Your task to perform on an android device: open app "Google Chat" (install if not already installed) Image 0: 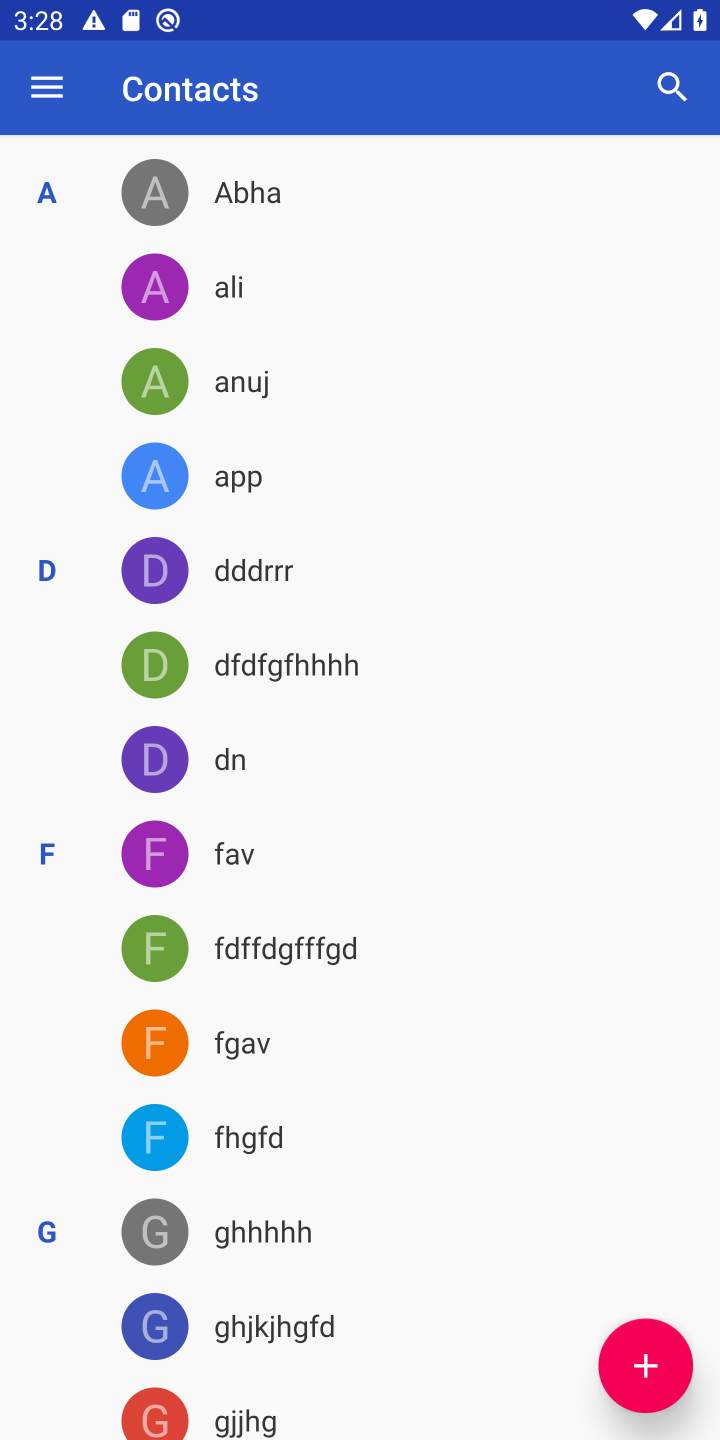
Step 0: press home button
Your task to perform on an android device: open app "Google Chat" (install if not already installed) Image 1: 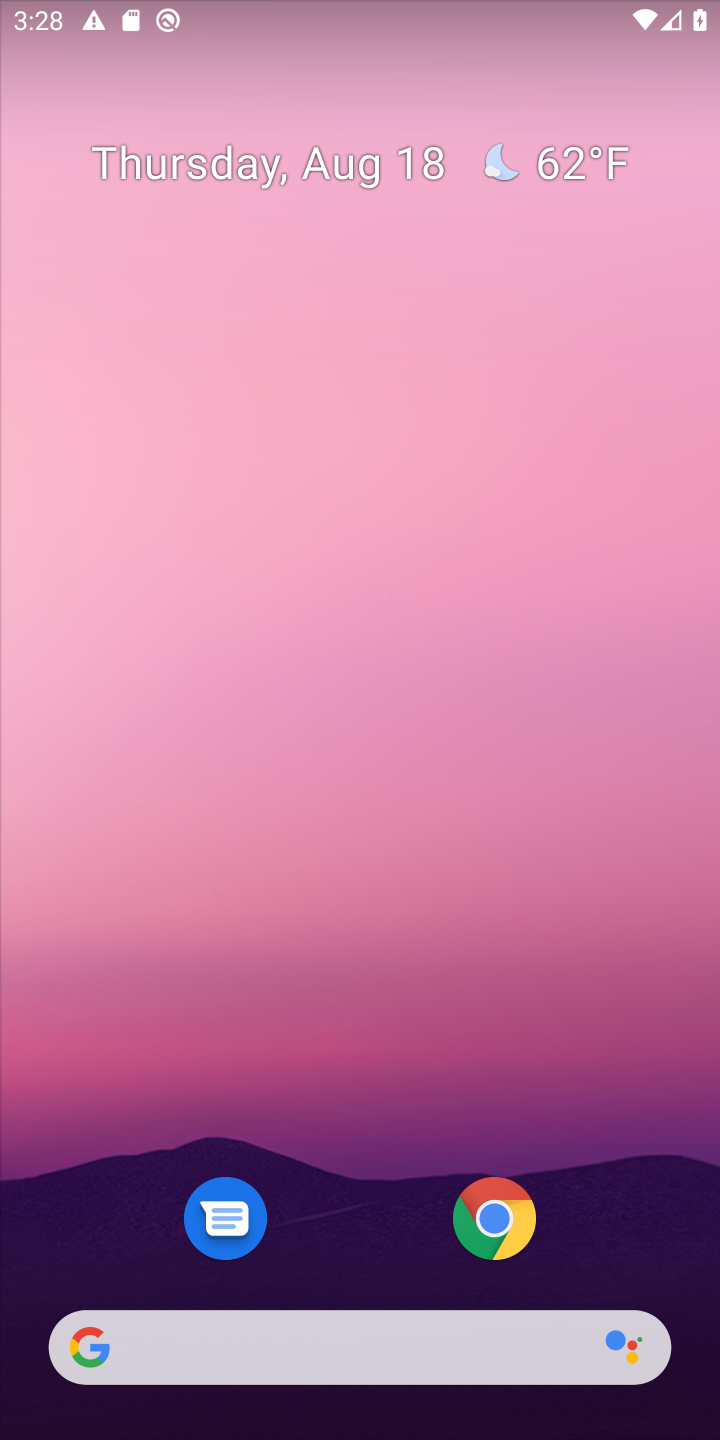
Step 1: drag from (341, 1163) to (355, 361)
Your task to perform on an android device: open app "Google Chat" (install if not already installed) Image 2: 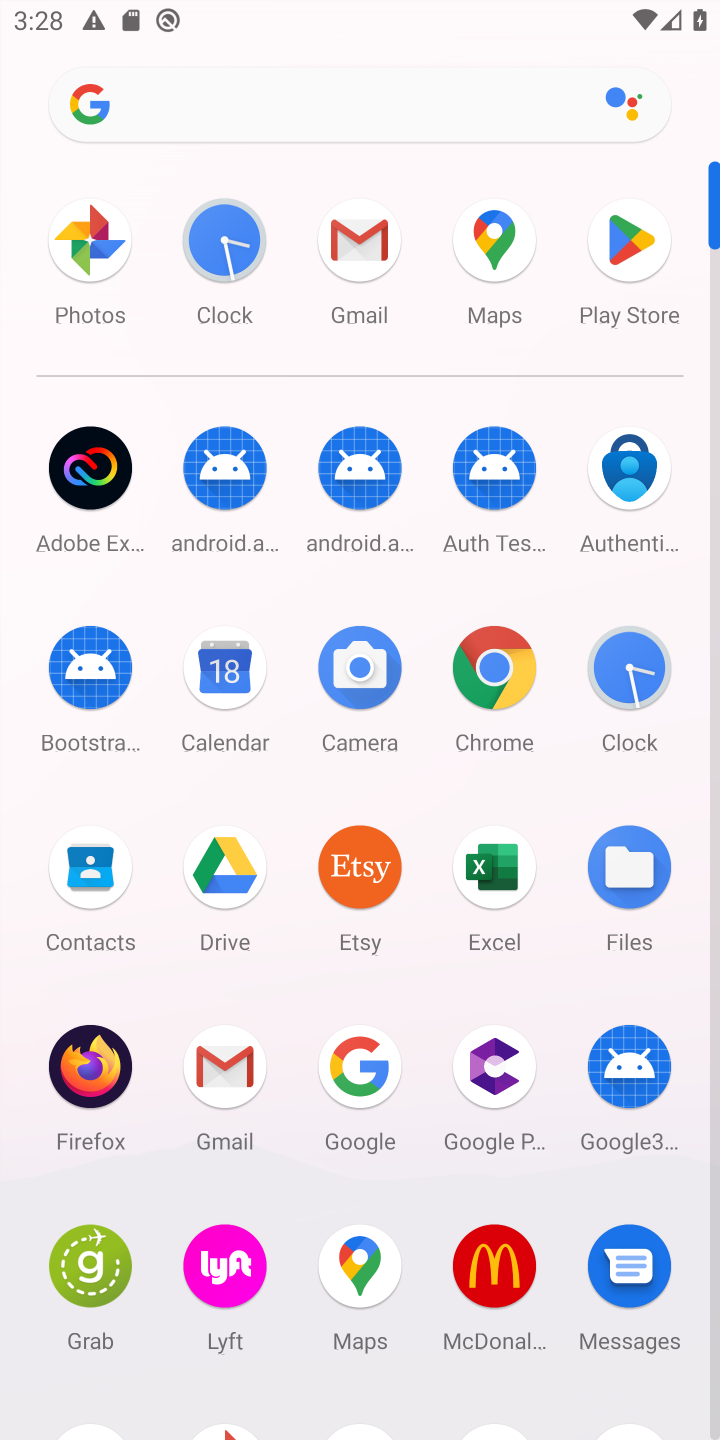
Step 2: click (614, 256)
Your task to perform on an android device: open app "Google Chat" (install if not already installed) Image 3: 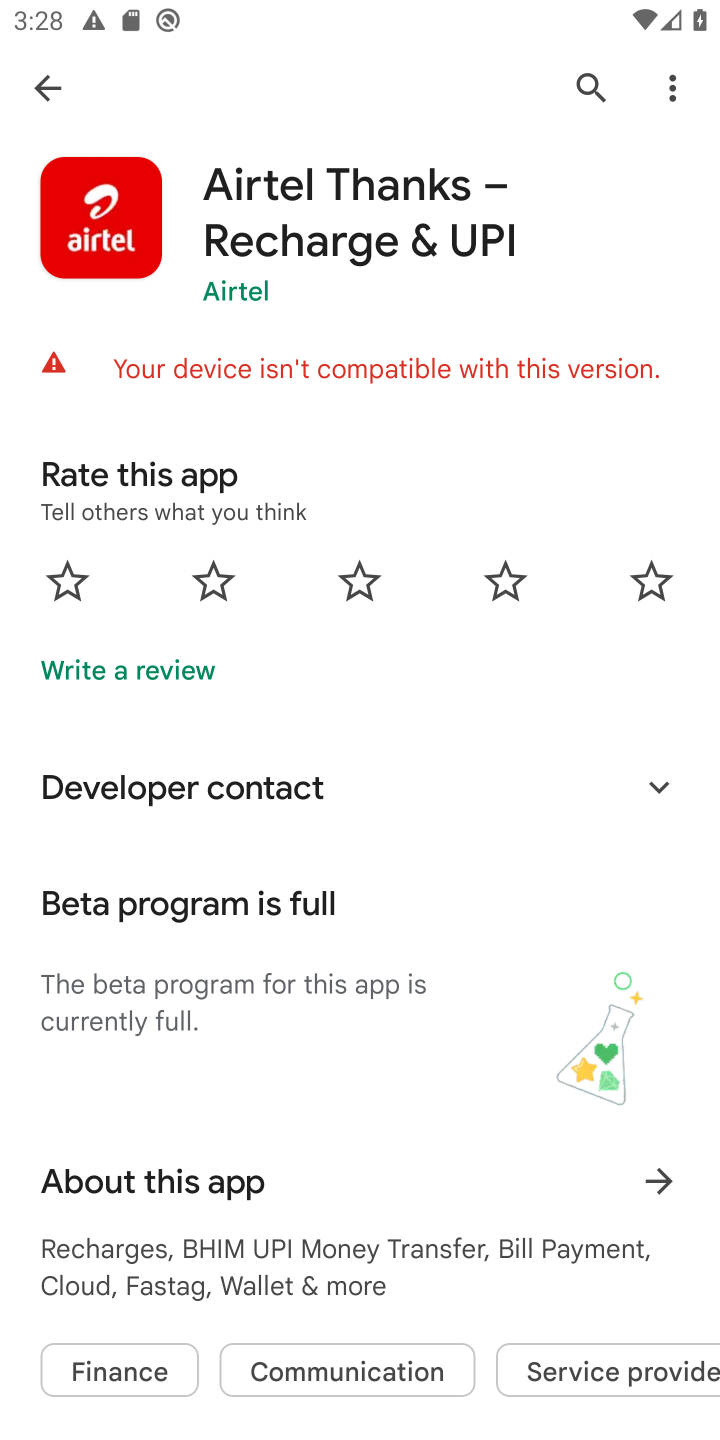
Step 3: click (567, 82)
Your task to perform on an android device: open app "Google Chat" (install if not already installed) Image 4: 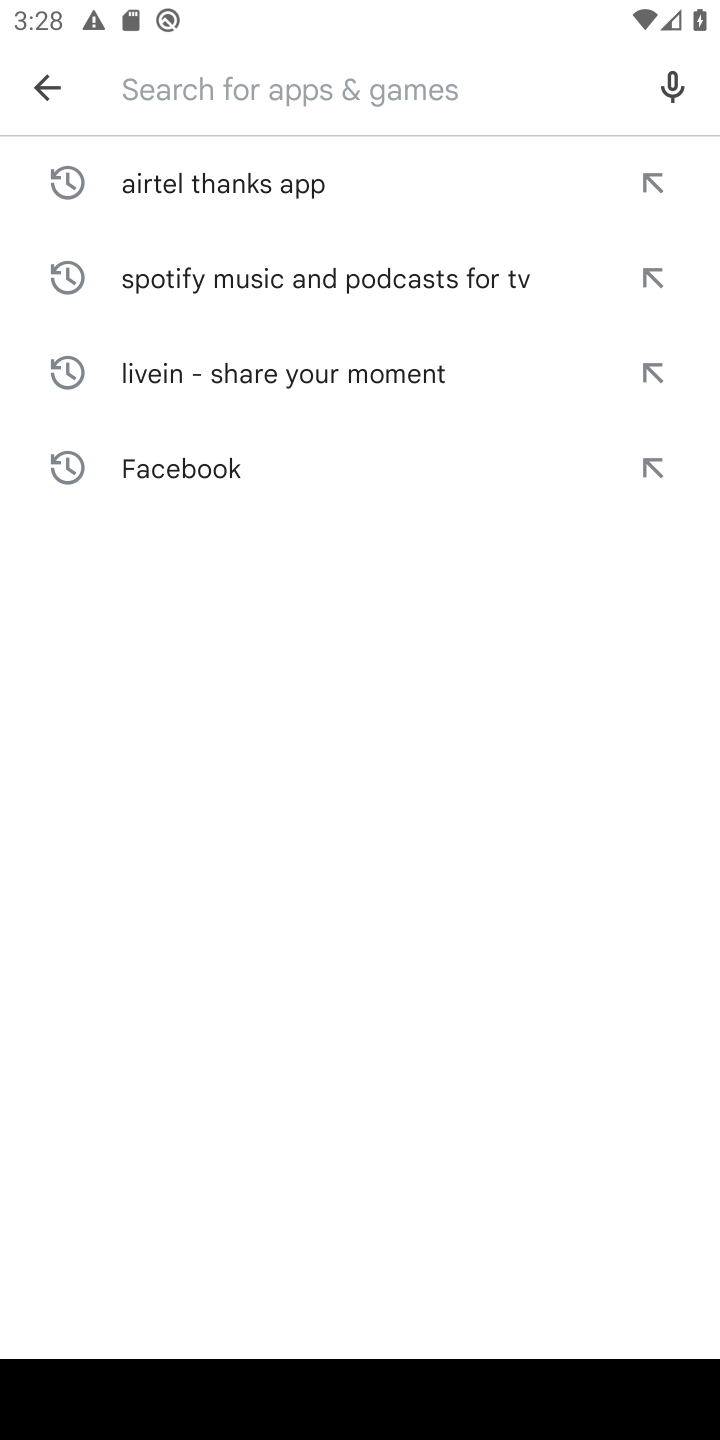
Step 4: click (376, 102)
Your task to perform on an android device: open app "Google Chat" (install if not already installed) Image 5: 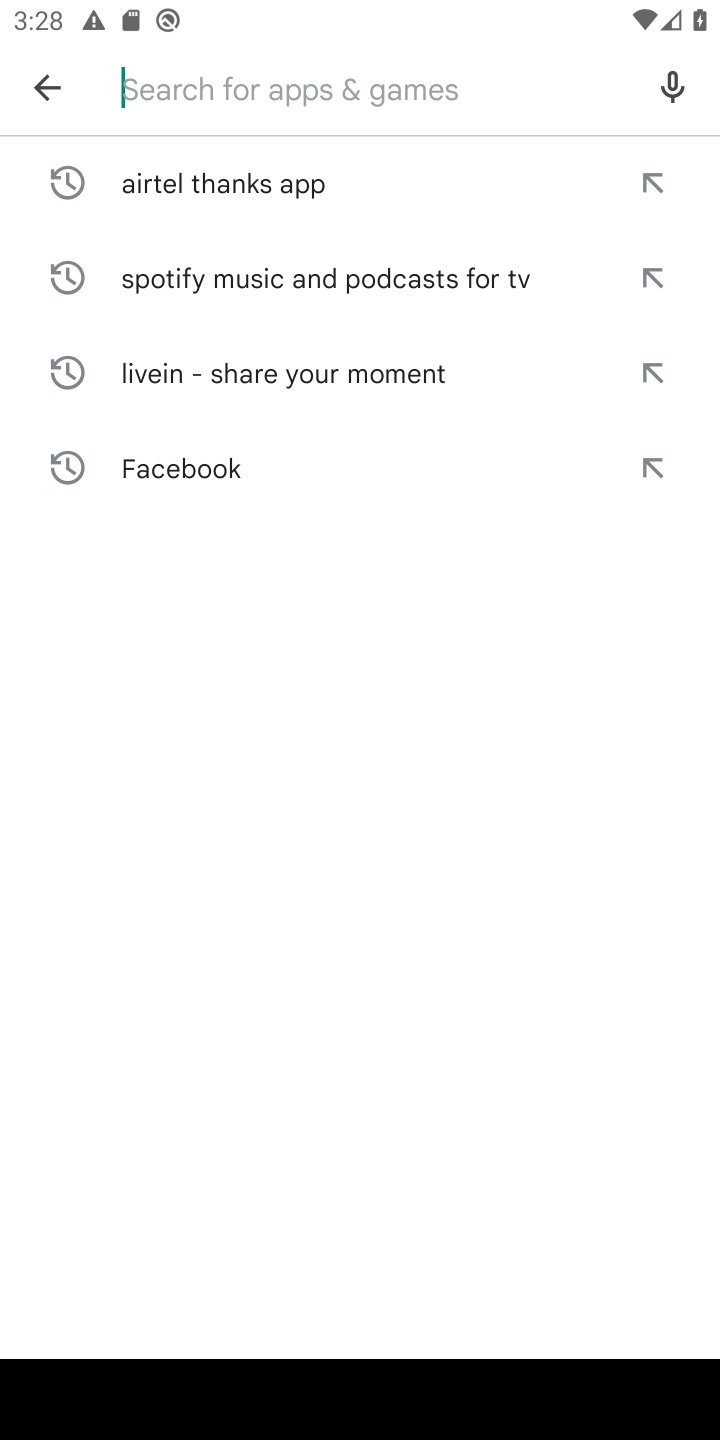
Step 5: type "Google Chat"
Your task to perform on an android device: open app "Google Chat" (install if not already installed) Image 6: 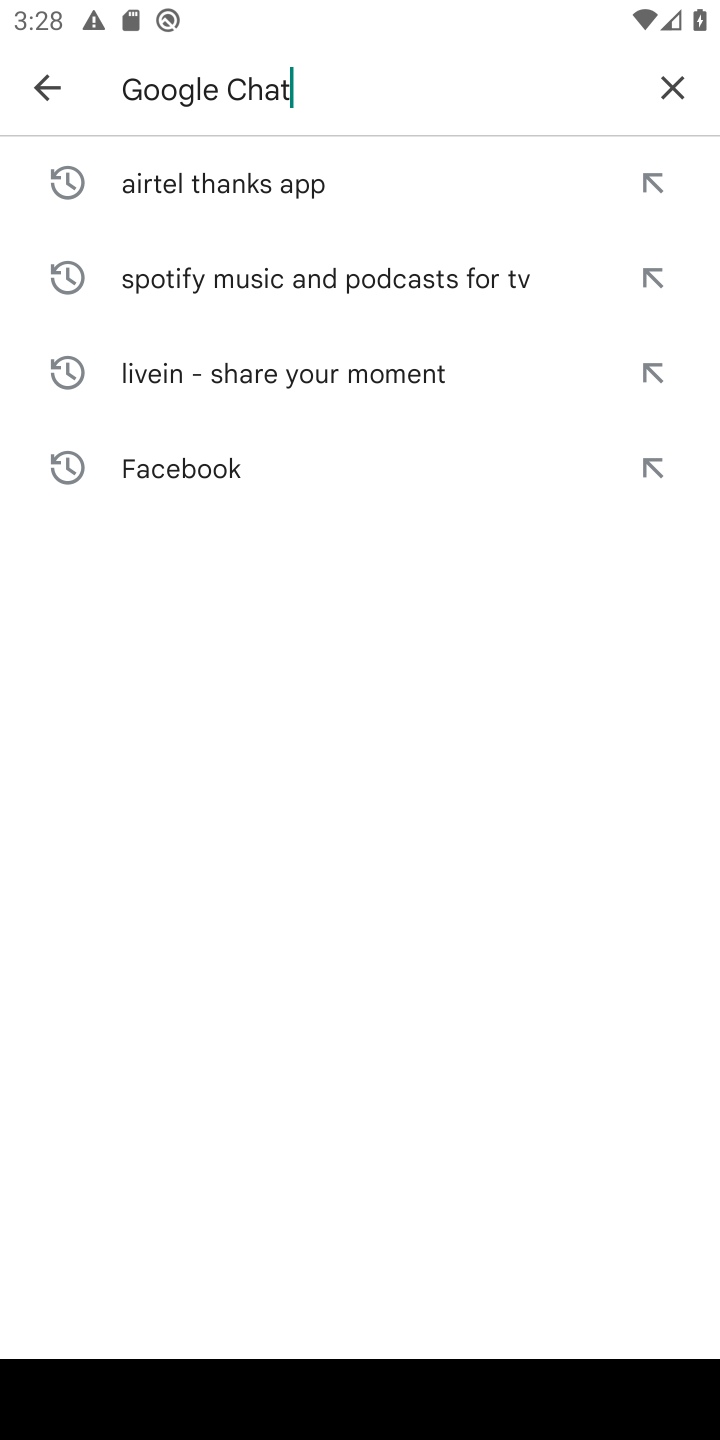
Step 6: type ""
Your task to perform on an android device: open app "Google Chat" (install if not already installed) Image 7: 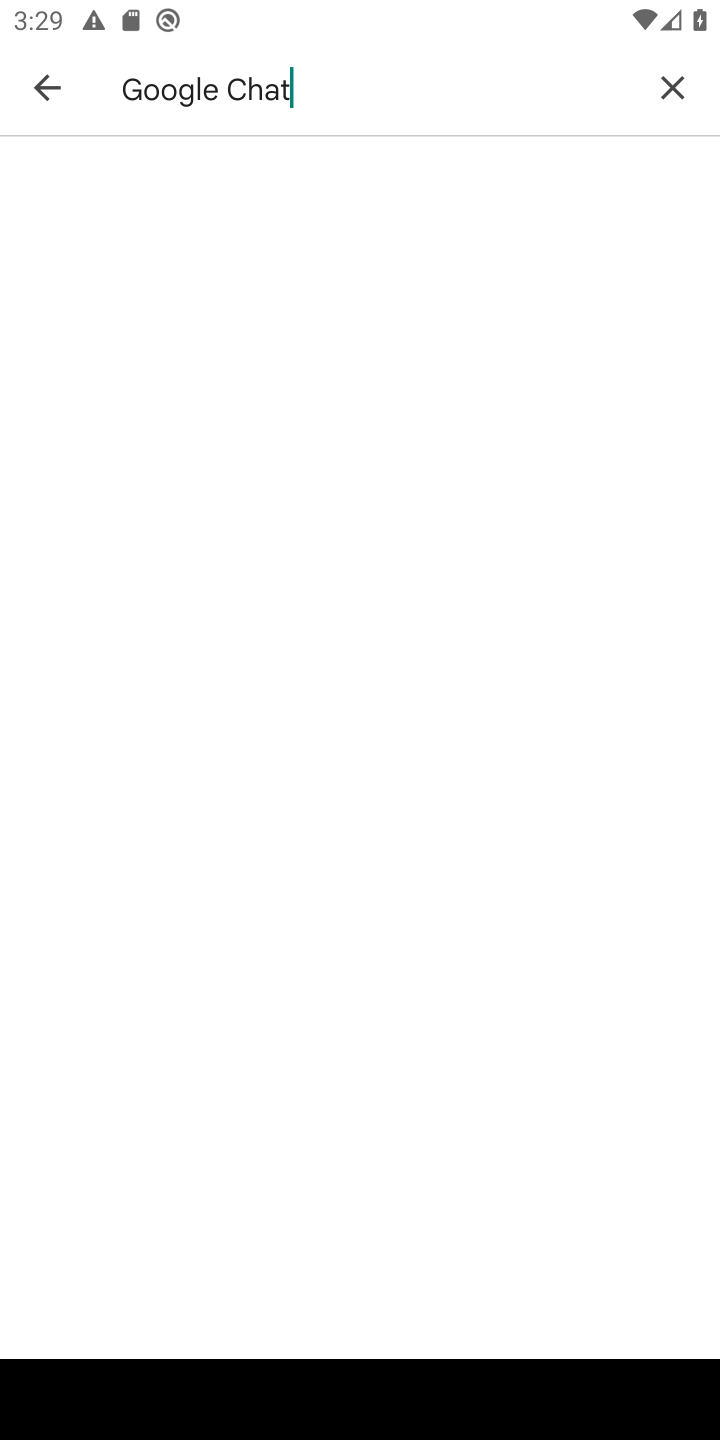
Step 7: task complete